Your task to perform on an android device: Go to accessibility settings Image 0: 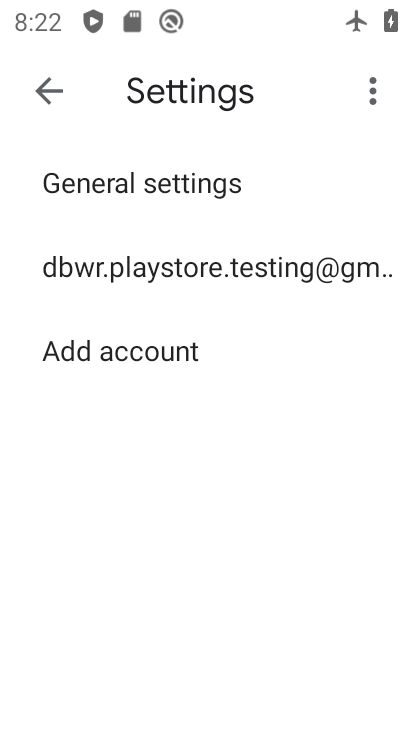
Step 0: press home button
Your task to perform on an android device: Go to accessibility settings Image 1: 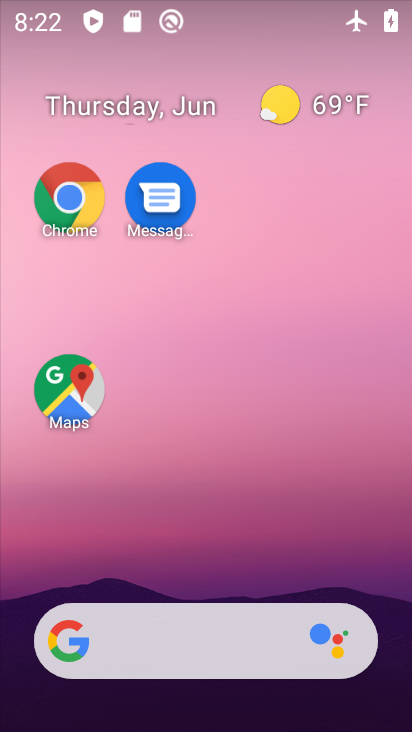
Step 1: drag from (241, 581) to (270, 2)
Your task to perform on an android device: Go to accessibility settings Image 2: 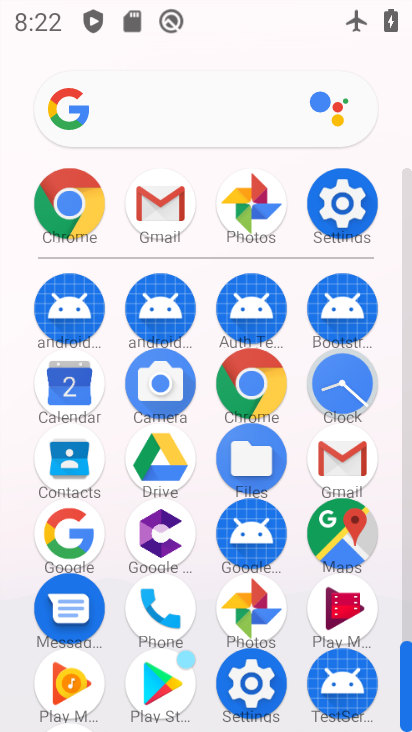
Step 2: click (329, 202)
Your task to perform on an android device: Go to accessibility settings Image 3: 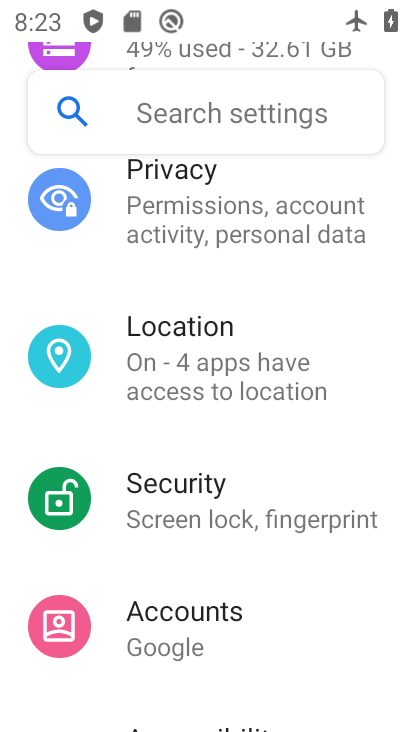
Step 3: drag from (196, 368) to (183, 720)
Your task to perform on an android device: Go to accessibility settings Image 4: 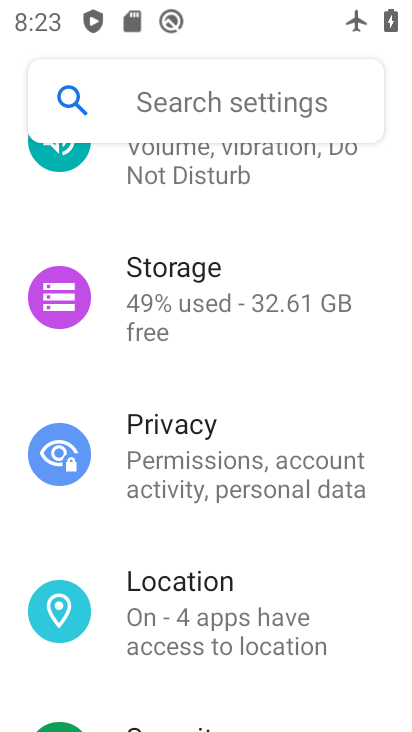
Step 4: drag from (191, 640) to (171, 1)
Your task to perform on an android device: Go to accessibility settings Image 5: 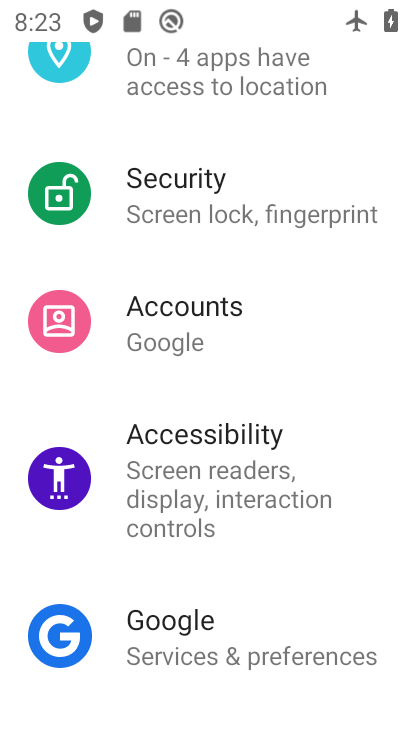
Step 5: click (190, 549)
Your task to perform on an android device: Go to accessibility settings Image 6: 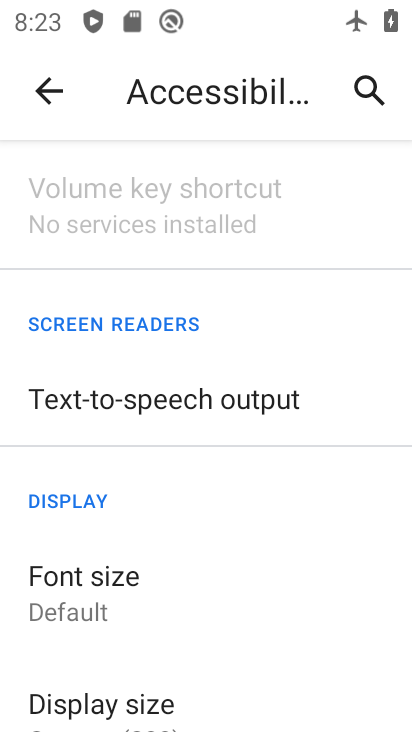
Step 6: task complete